Your task to perform on an android device: Search for usb-b on target, select the first entry, add it to the cart, then select checkout. Image 0: 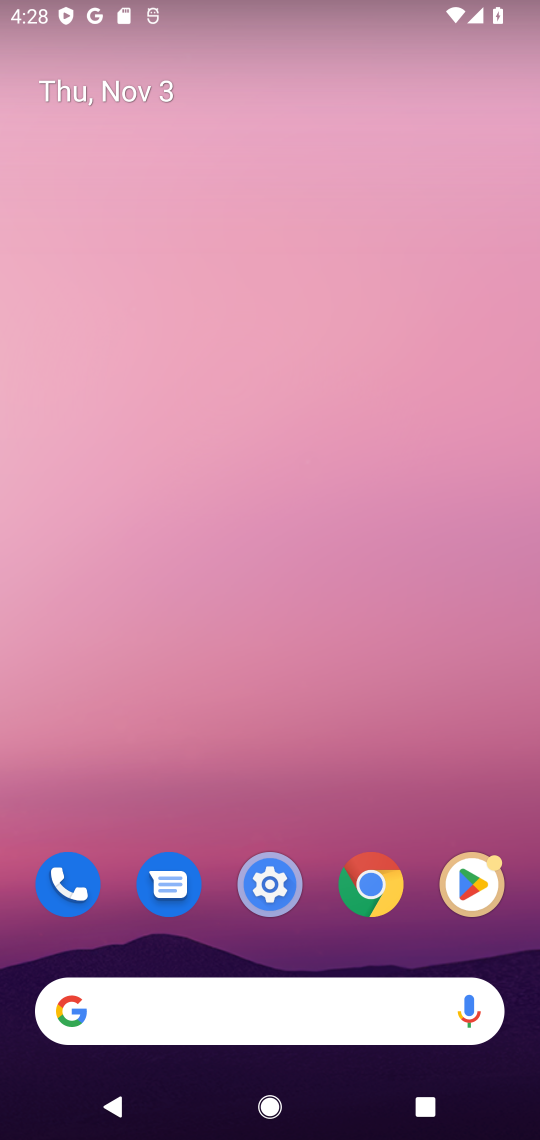
Step 0: press home button
Your task to perform on an android device: Search for usb-b on target, select the first entry, add it to the cart, then select checkout. Image 1: 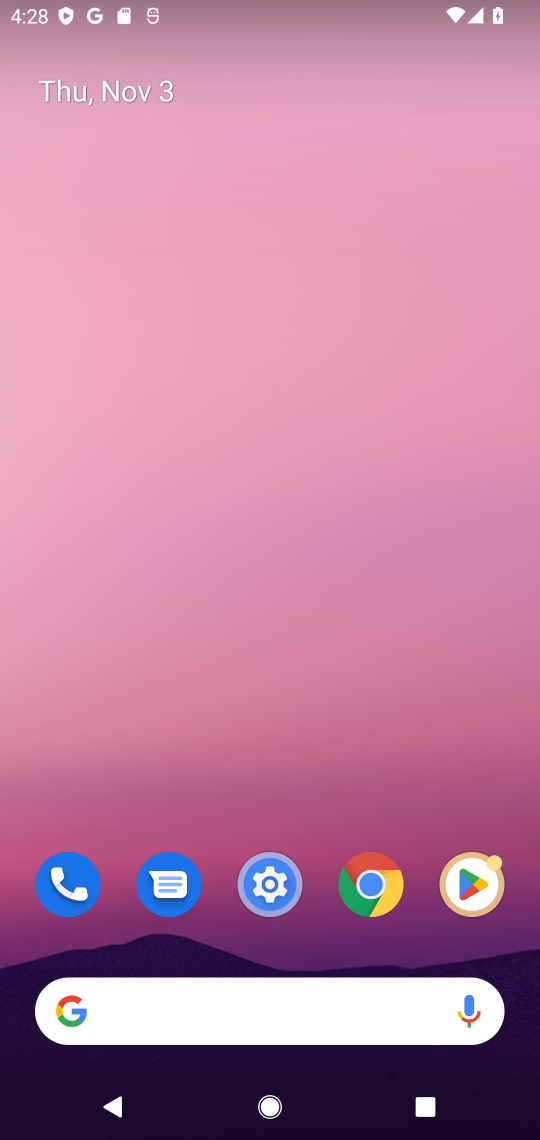
Step 1: click (117, 1006)
Your task to perform on an android device: Search for usb-b on target, select the first entry, add it to the cart, then select checkout. Image 2: 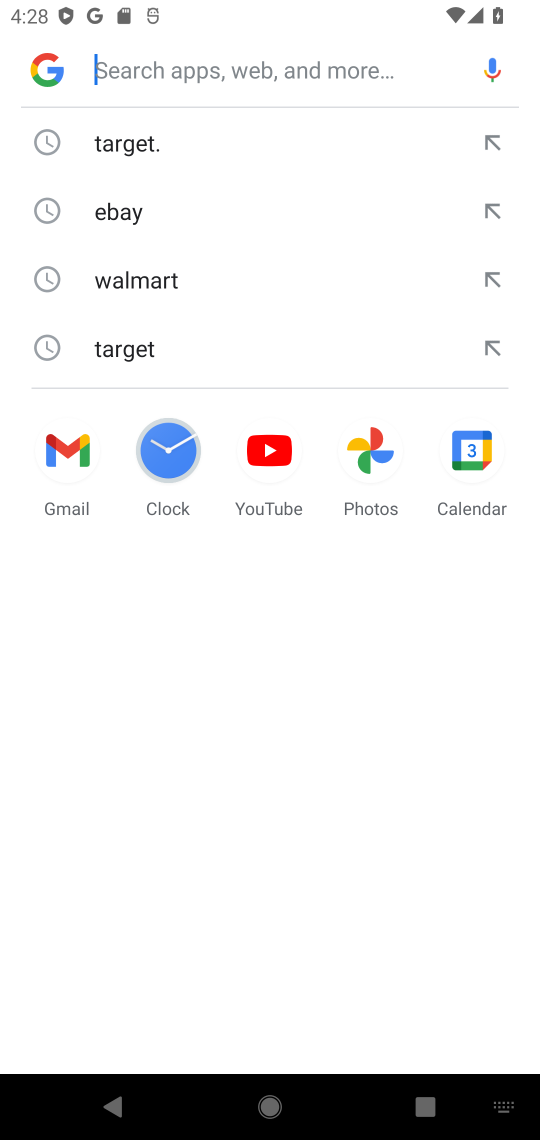
Step 2: type "target"
Your task to perform on an android device: Search for usb-b on target, select the first entry, add it to the cart, then select checkout. Image 3: 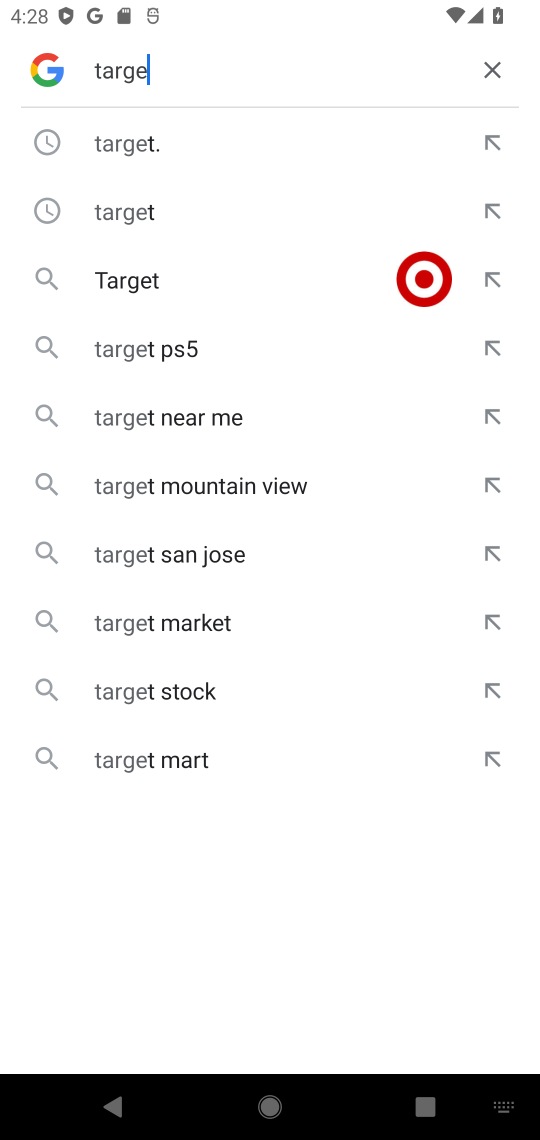
Step 3: press enter
Your task to perform on an android device: Search for usb-b on target, select the first entry, add it to the cart, then select checkout. Image 4: 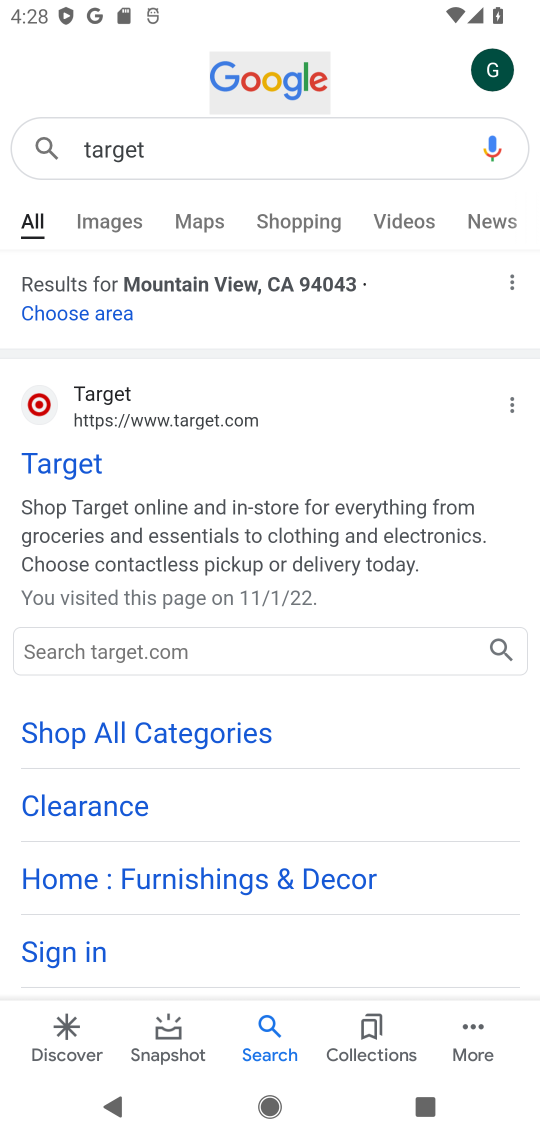
Step 4: click (64, 468)
Your task to perform on an android device: Search for usb-b on target, select the first entry, add it to the cart, then select checkout. Image 5: 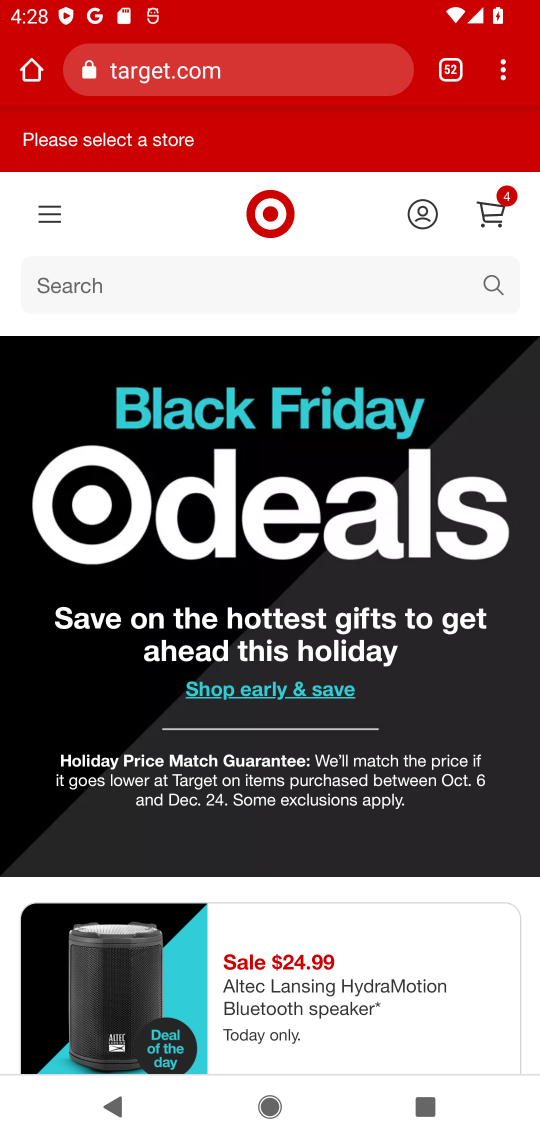
Step 5: click (161, 285)
Your task to perform on an android device: Search for usb-b on target, select the first entry, add it to the cart, then select checkout. Image 6: 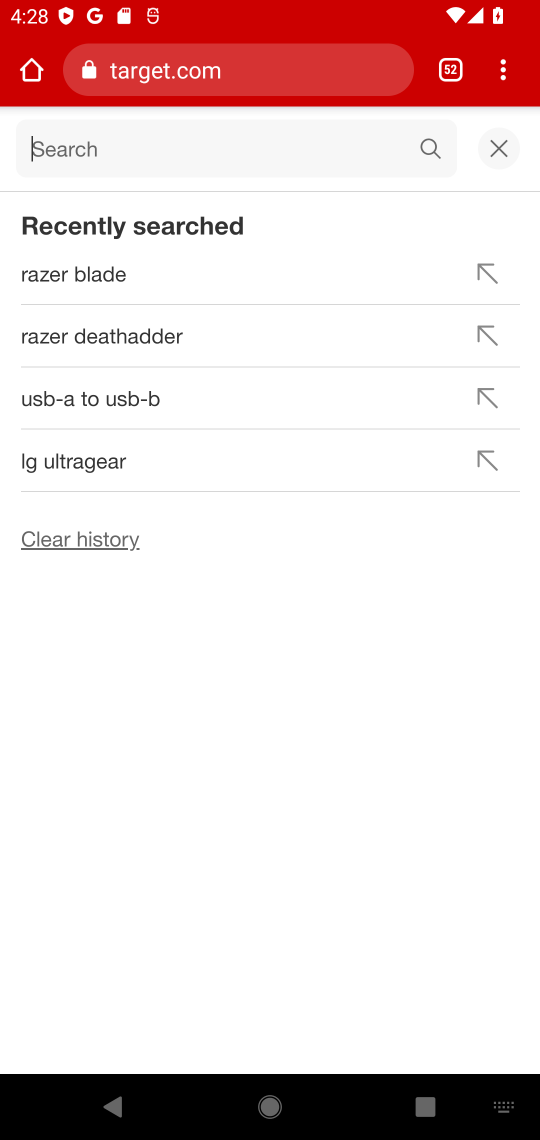
Step 6: type "usb-b"
Your task to perform on an android device: Search for usb-b on target, select the first entry, add it to the cart, then select checkout. Image 7: 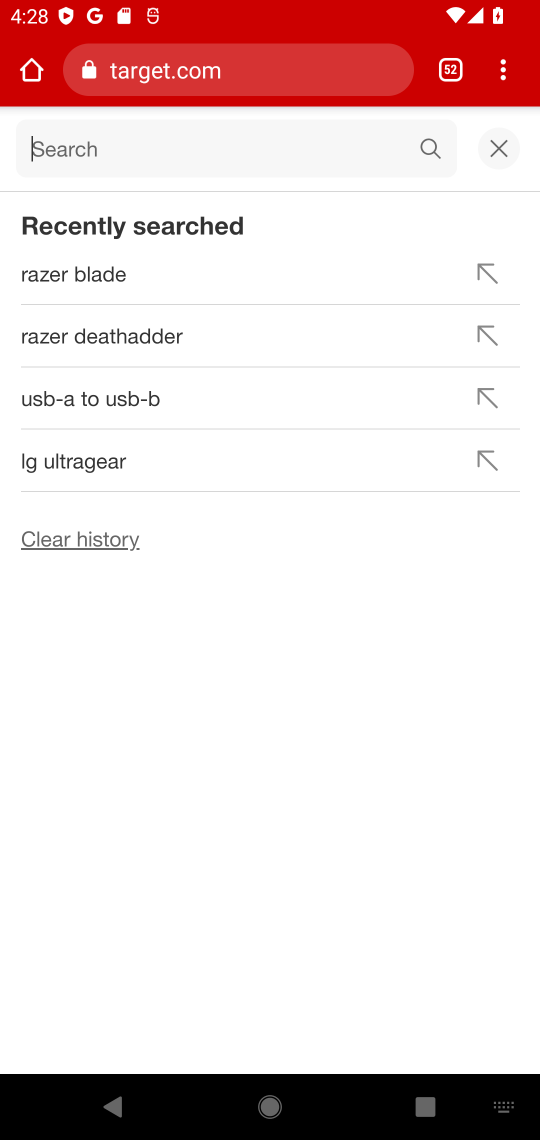
Step 7: press enter
Your task to perform on an android device: Search for usb-b on target, select the first entry, add it to the cart, then select checkout. Image 8: 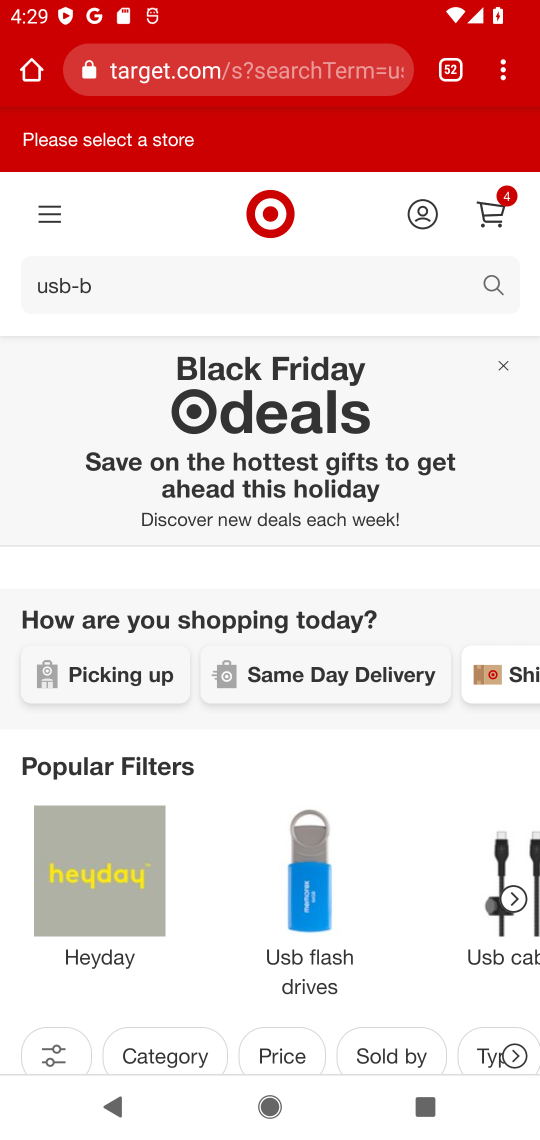
Step 8: task complete